Your task to perform on an android device: Open Maps and search for coffee Image 0: 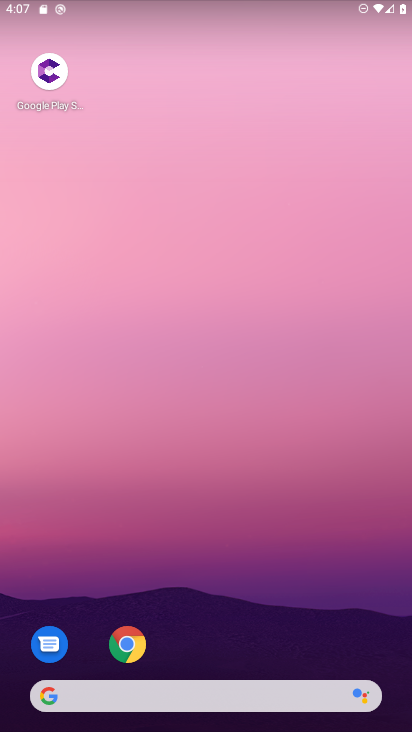
Step 0: drag from (209, 658) to (258, 214)
Your task to perform on an android device: Open Maps and search for coffee Image 1: 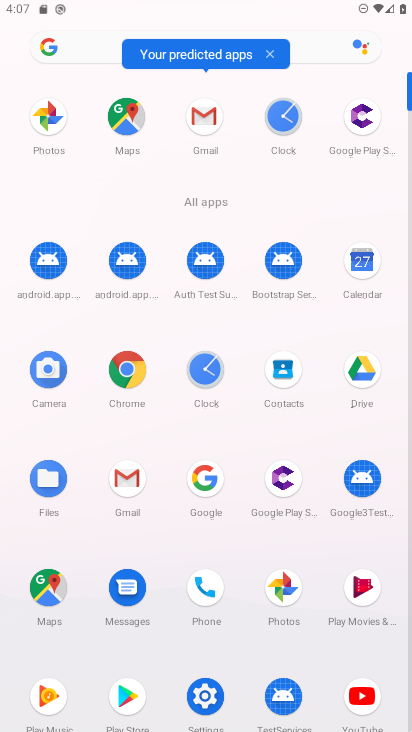
Step 1: click (114, 130)
Your task to perform on an android device: Open Maps and search for coffee Image 2: 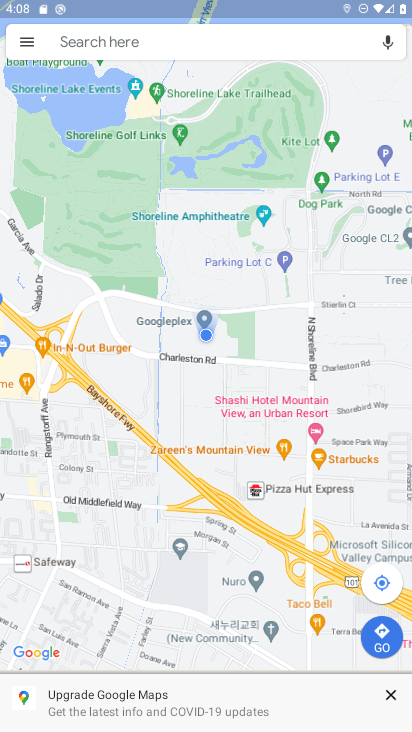
Step 2: click (136, 38)
Your task to perform on an android device: Open Maps and search for coffee Image 3: 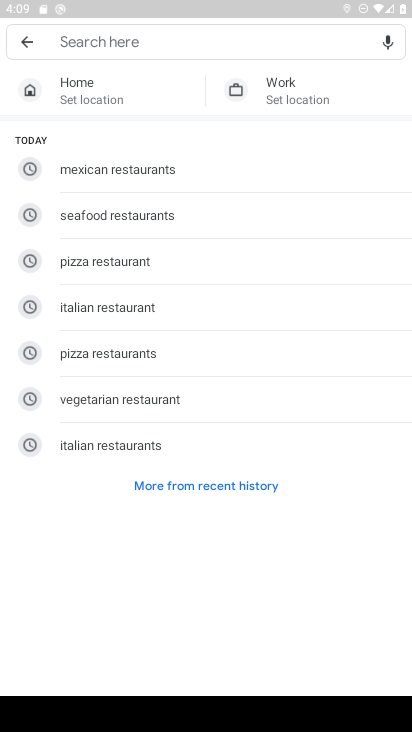
Step 3: type "coffee"
Your task to perform on an android device: Open Maps and search for coffee Image 4: 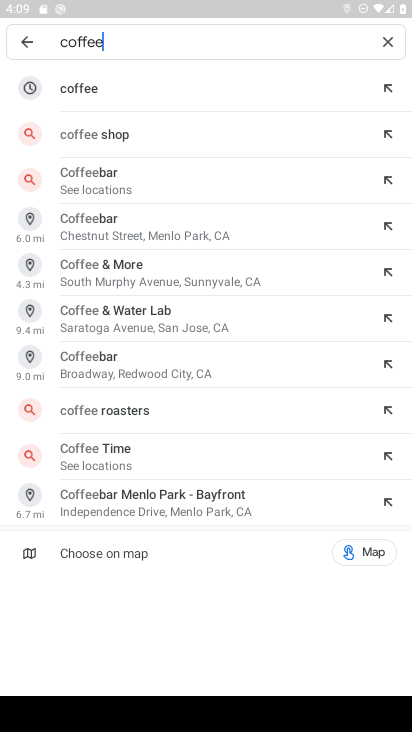
Step 4: click (106, 94)
Your task to perform on an android device: Open Maps and search for coffee Image 5: 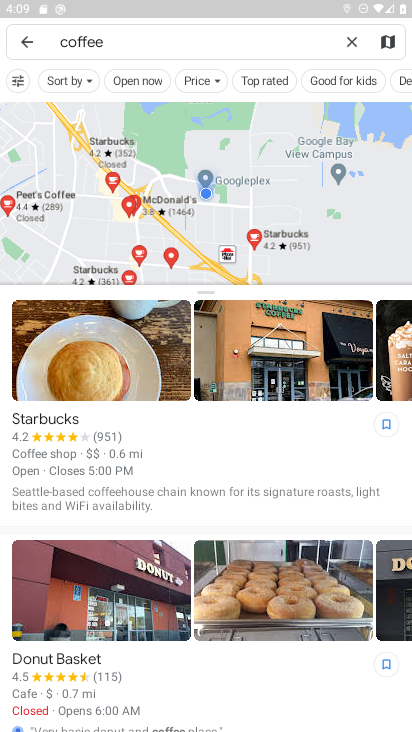
Step 5: task complete